Your task to perform on an android device: See recent photos Image 0: 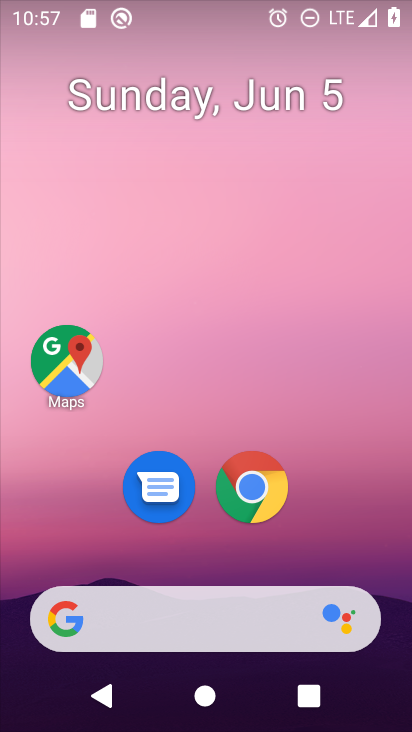
Step 0: drag from (276, 517) to (310, 84)
Your task to perform on an android device: See recent photos Image 1: 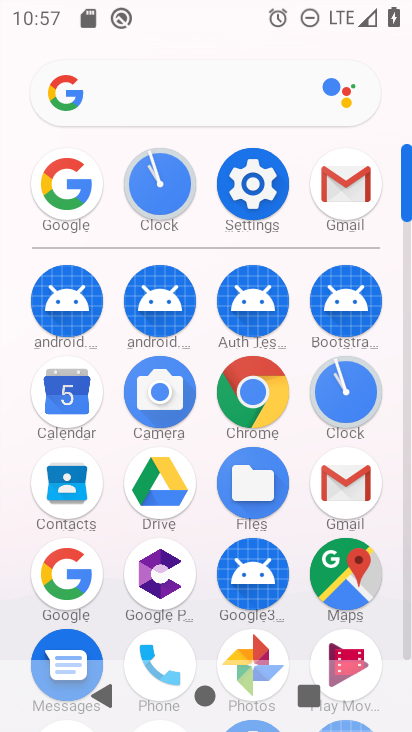
Step 1: click (259, 645)
Your task to perform on an android device: See recent photos Image 2: 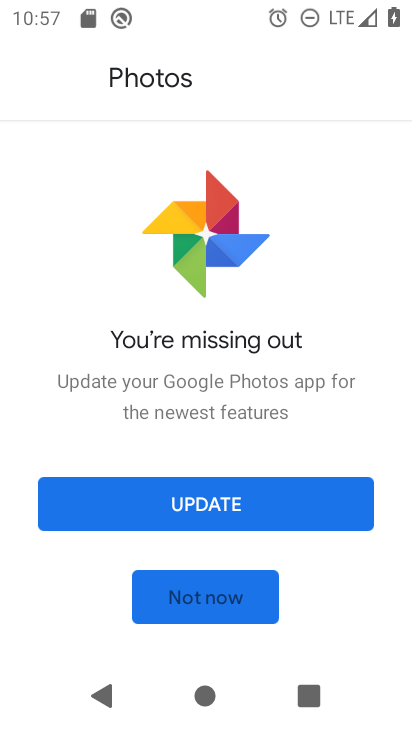
Step 2: click (221, 603)
Your task to perform on an android device: See recent photos Image 3: 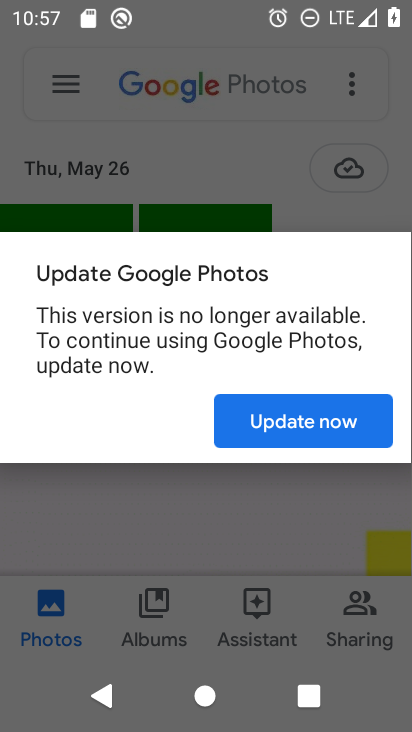
Step 3: click (321, 422)
Your task to perform on an android device: See recent photos Image 4: 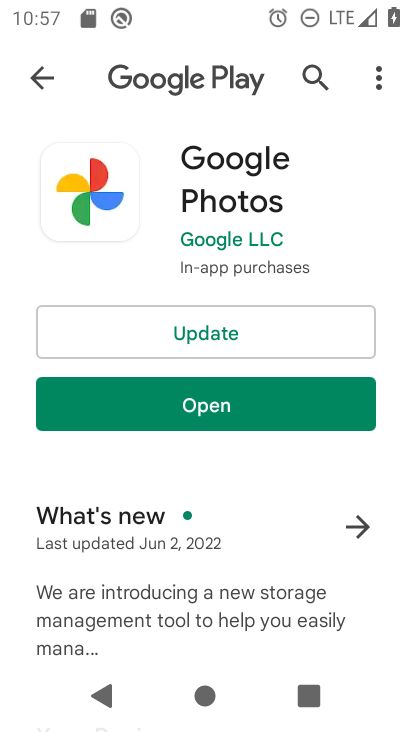
Step 4: task complete